Your task to perform on an android device: delete browsing data in the chrome app Image 0: 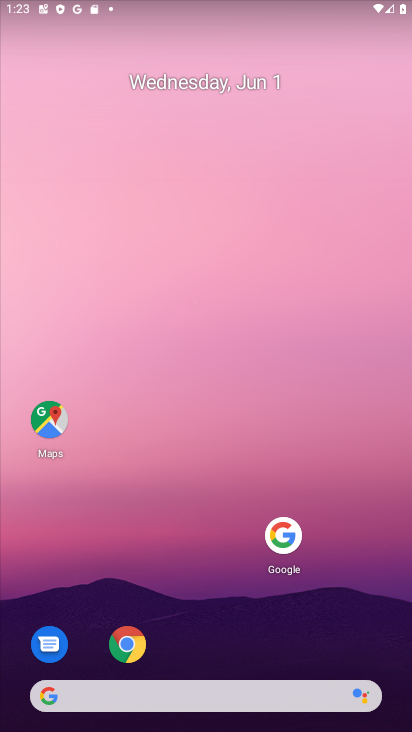
Step 0: click (138, 642)
Your task to perform on an android device: delete browsing data in the chrome app Image 1: 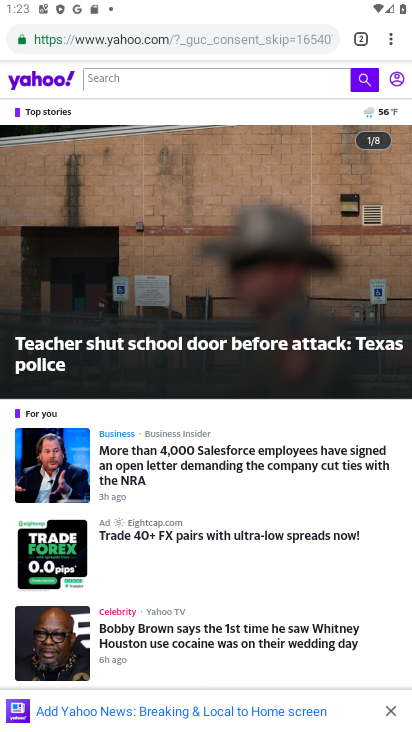
Step 1: drag from (394, 43) to (273, 503)
Your task to perform on an android device: delete browsing data in the chrome app Image 2: 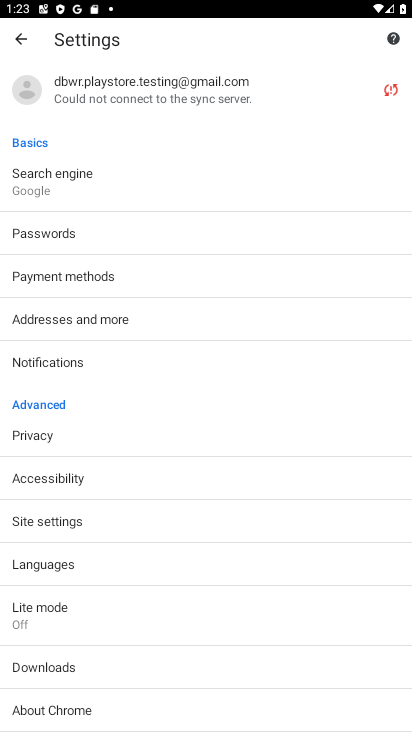
Step 2: click (34, 431)
Your task to perform on an android device: delete browsing data in the chrome app Image 3: 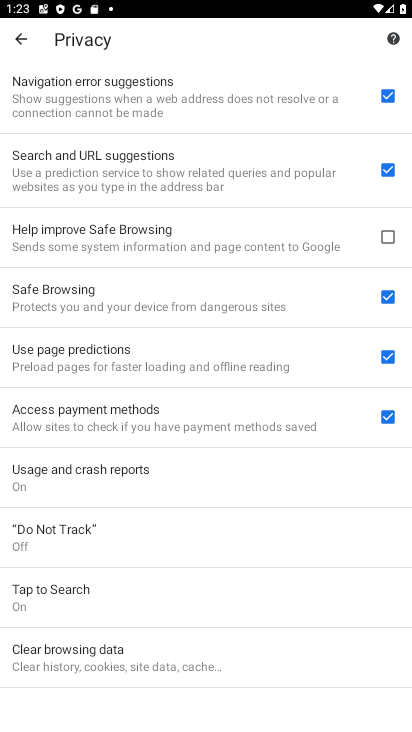
Step 3: drag from (134, 613) to (292, 79)
Your task to perform on an android device: delete browsing data in the chrome app Image 4: 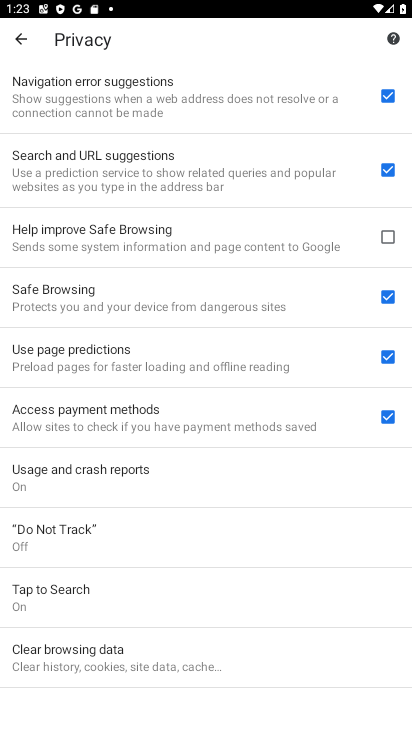
Step 4: click (108, 662)
Your task to perform on an android device: delete browsing data in the chrome app Image 5: 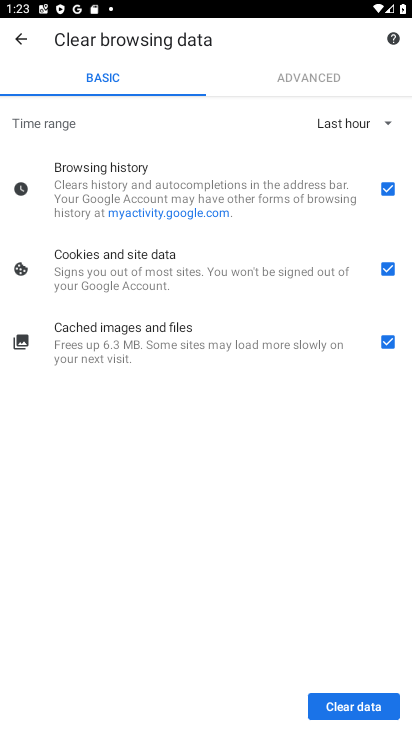
Step 5: click (353, 708)
Your task to perform on an android device: delete browsing data in the chrome app Image 6: 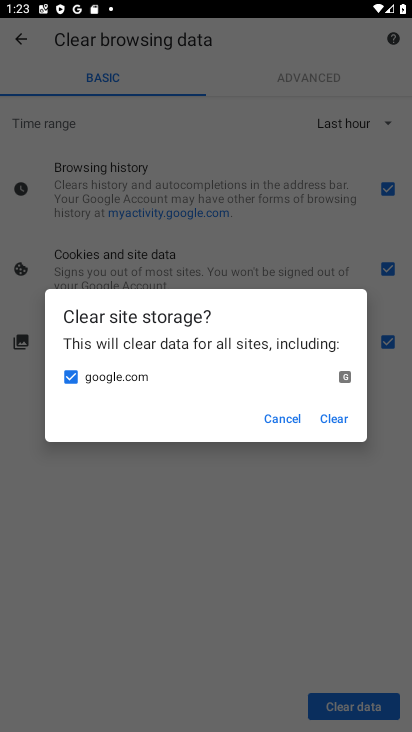
Step 6: click (335, 417)
Your task to perform on an android device: delete browsing data in the chrome app Image 7: 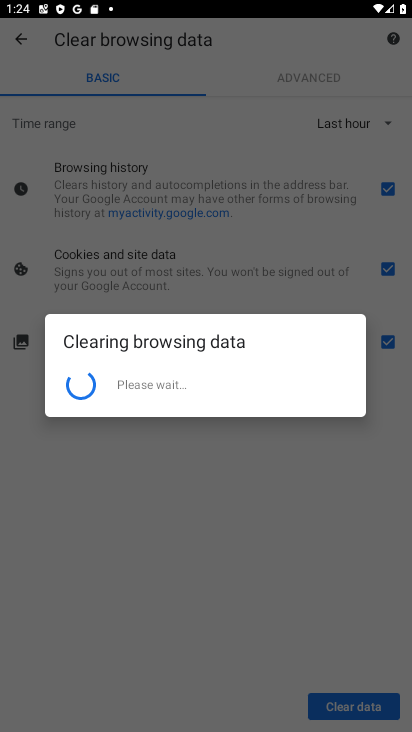
Step 7: task complete